Your task to perform on an android device: open chrome and create a bookmark for the current page Image 0: 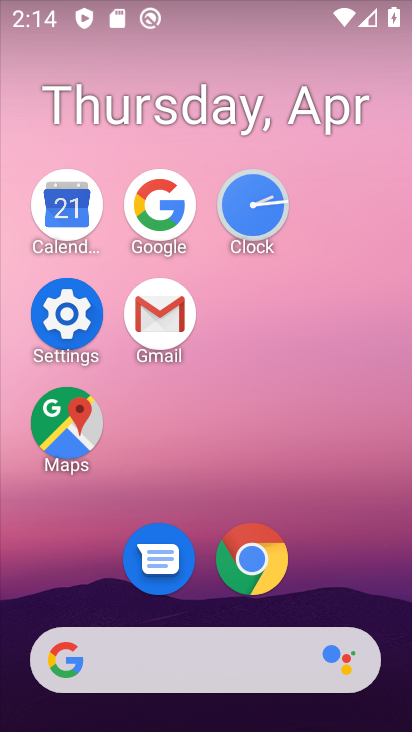
Step 0: click (254, 533)
Your task to perform on an android device: open chrome and create a bookmark for the current page Image 1: 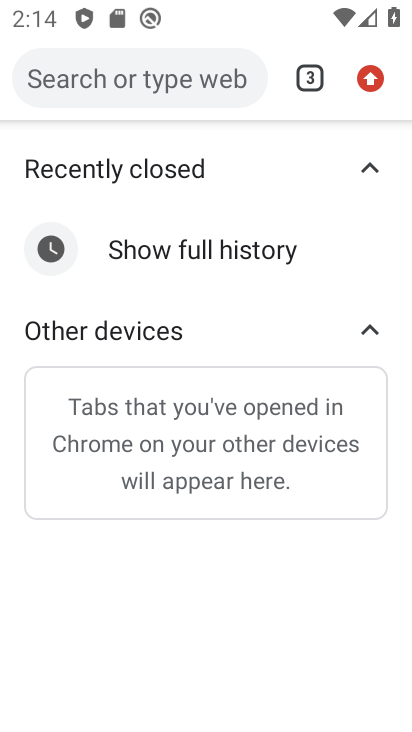
Step 1: click (373, 75)
Your task to perform on an android device: open chrome and create a bookmark for the current page Image 2: 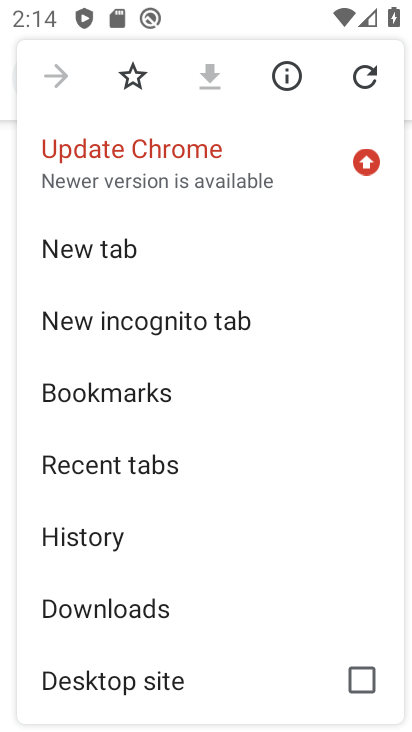
Step 2: click (133, 67)
Your task to perform on an android device: open chrome and create a bookmark for the current page Image 3: 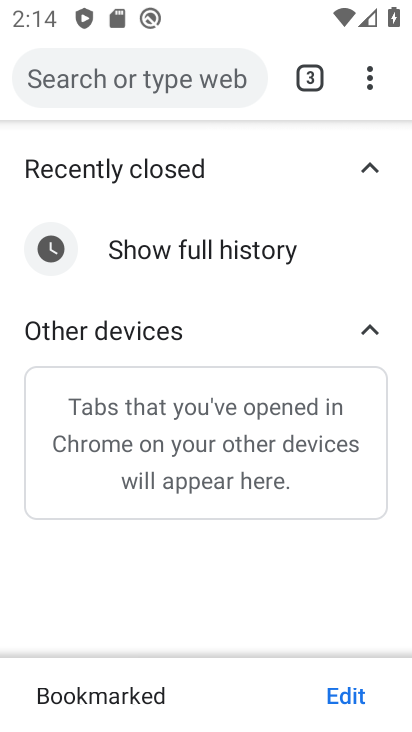
Step 3: task complete